Your task to perform on an android device: Open Google Chrome and open the bookmarks view Image 0: 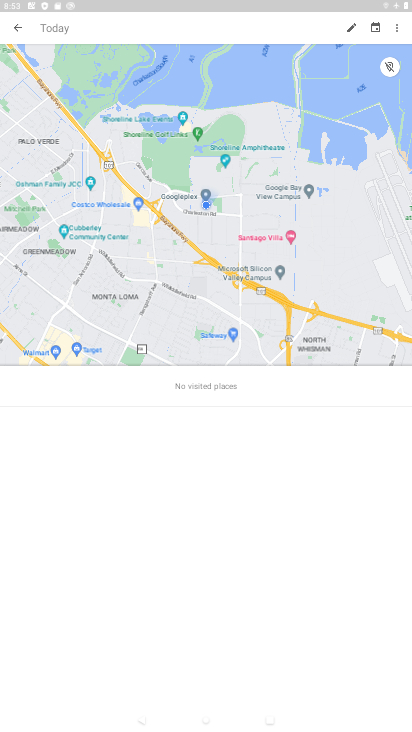
Step 0: press home button
Your task to perform on an android device: Open Google Chrome and open the bookmarks view Image 1: 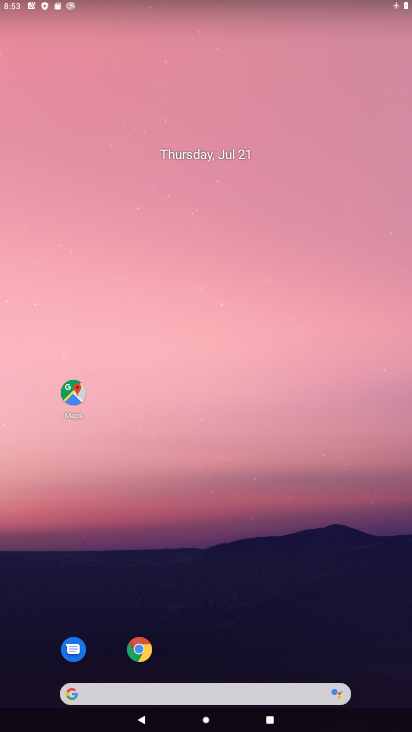
Step 1: click (140, 654)
Your task to perform on an android device: Open Google Chrome and open the bookmarks view Image 2: 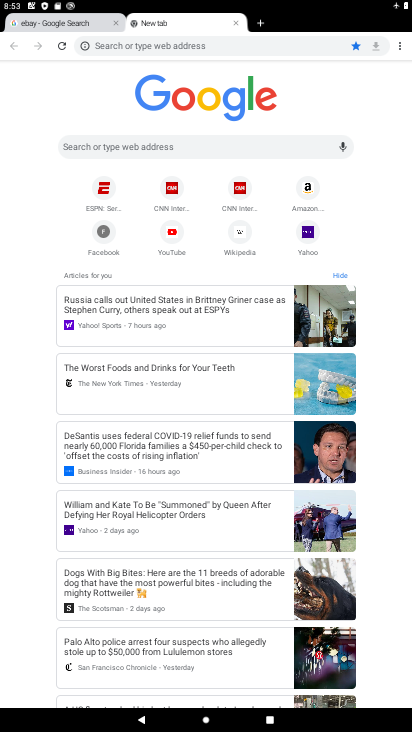
Step 2: click (397, 44)
Your task to perform on an android device: Open Google Chrome and open the bookmarks view Image 3: 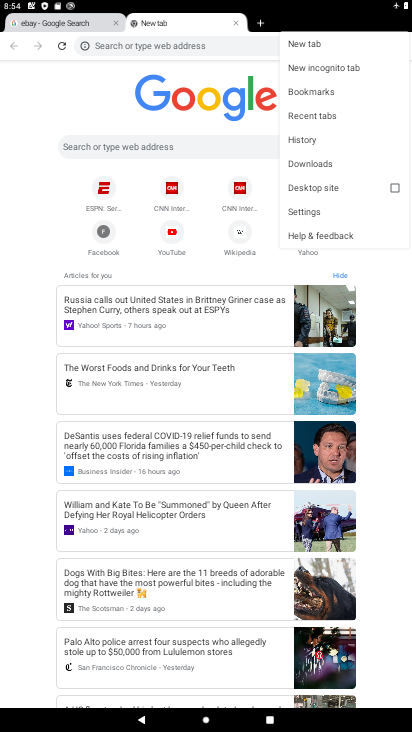
Step 3: click (317, 91)
Your task to perform on an android device: Open Google Chrome and open the bookmarks view Image 4: 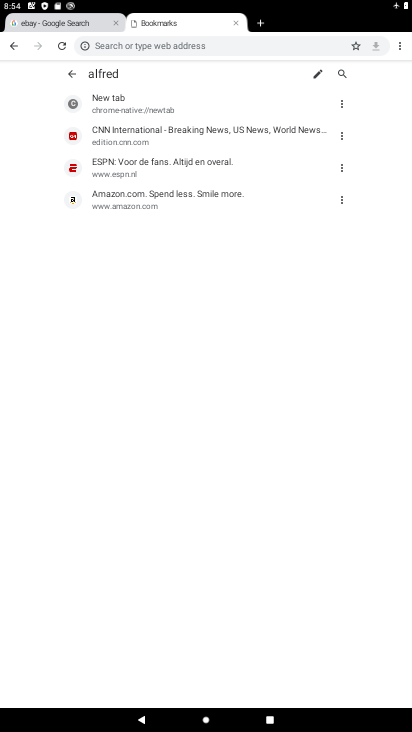
Step 4: click (132, 108)
Your task to perform on an android device: Open Google Chrome and open the bookmarks view Image 5: 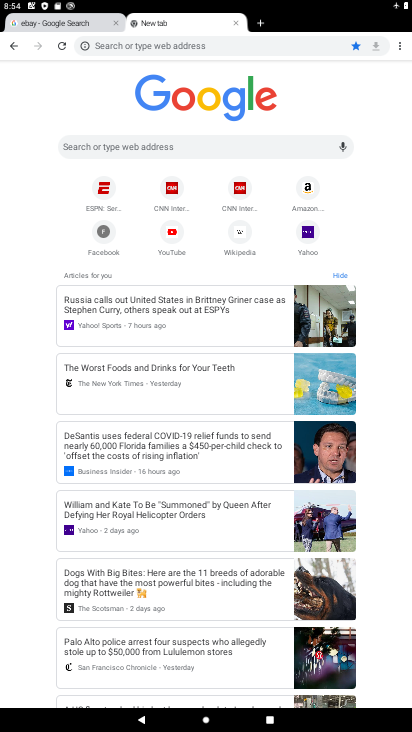
Step 5: task complete